Your task to perform on an android device: clear history in the chrome app Image 0: 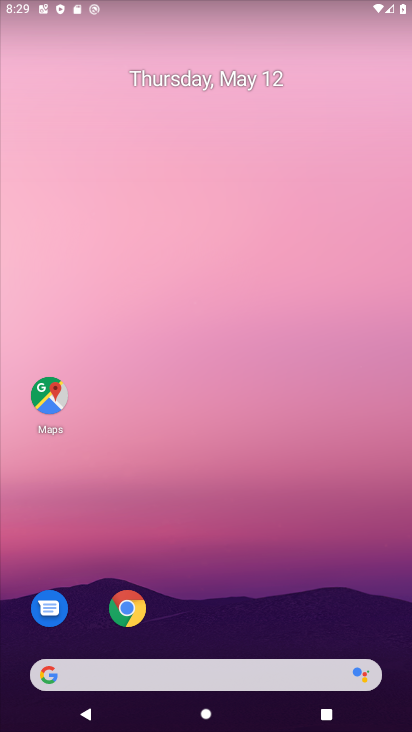
Step 0: click (134, 615)
Your task to perform on an android device: clear history in the chrome app Image 1: 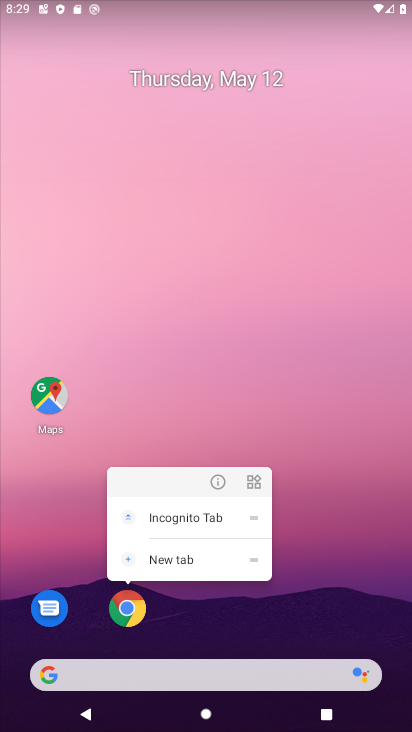
Step 1: click (126, 608)
Your task to perform on an android device: clear history in the chrome app Image 2: 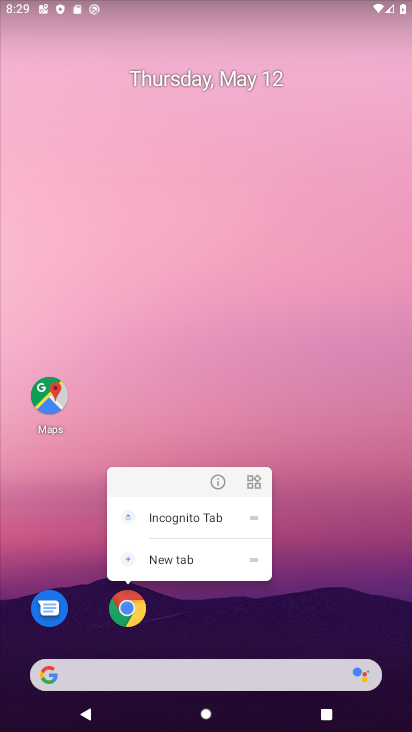
Step 2: click (123, 616)
Your task to perform on an android device: clear history in the chrome app Image 3: 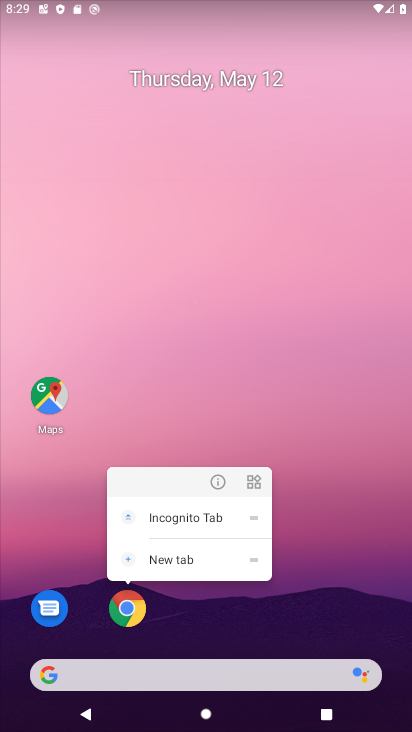
Step 3: click (127, 614)
Your task to perform on an android device: clear history in the chrome app Image 4: 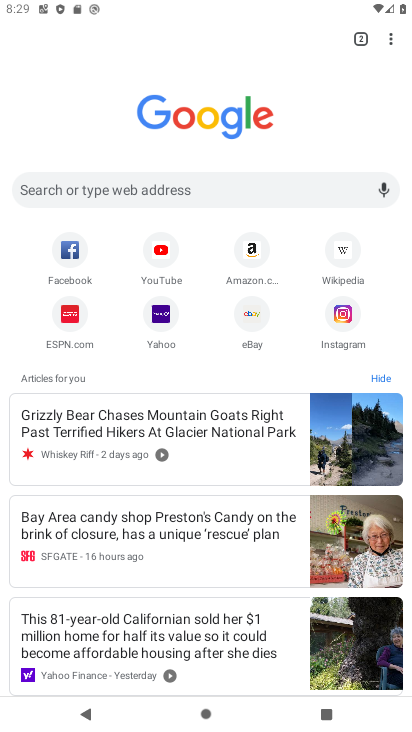
Step 4: drag from (389, 40) to (322, 229)
Your task to perform on an android device: clear history in the chrome app Image 5: 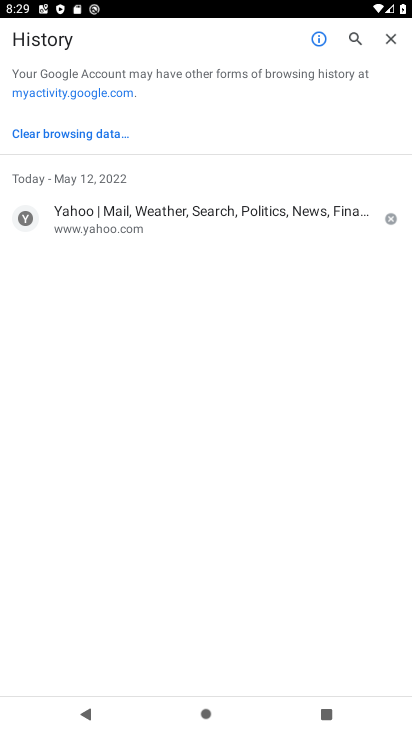
Step 5: click (91, 131)
Your task to perform on an android device: clear history in the chrome app Image 6: 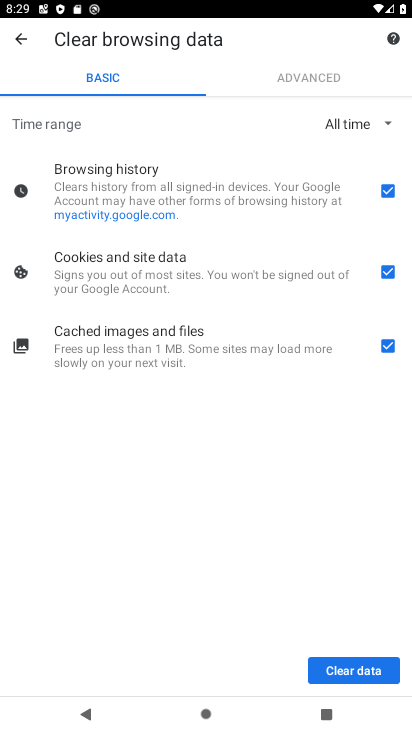
Step 6: click (363, 660)
Your task to perform on an android device: clear history in the chrome app Image 7: 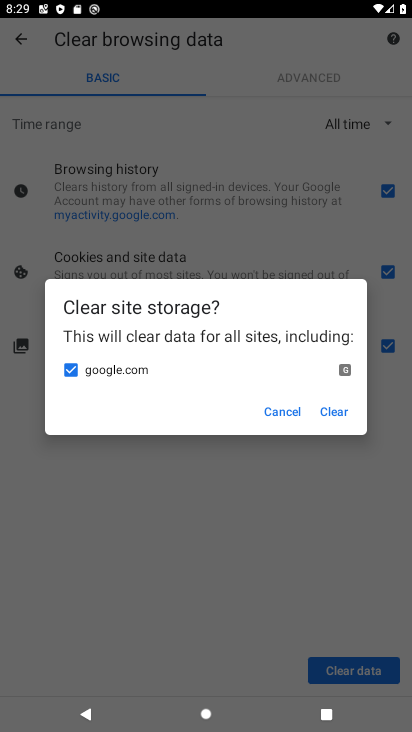
Step 7: click (349, 421)
Your task to perform on an android device: clear history in the chrome app Image 8: 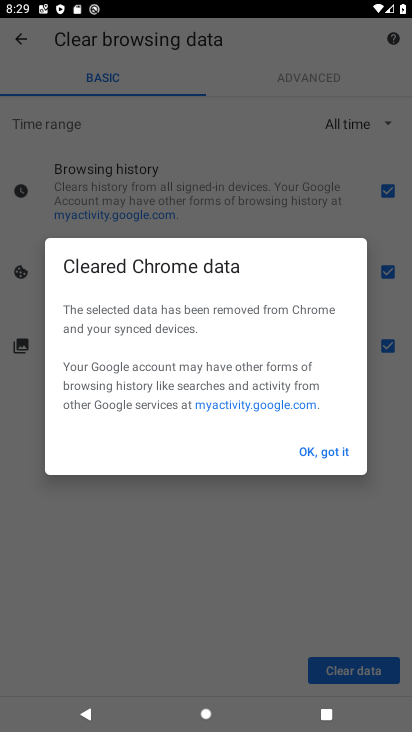
Step 8: click (331, 451)
Your task to perform on an android device: clear history in the chrome app Image 9: 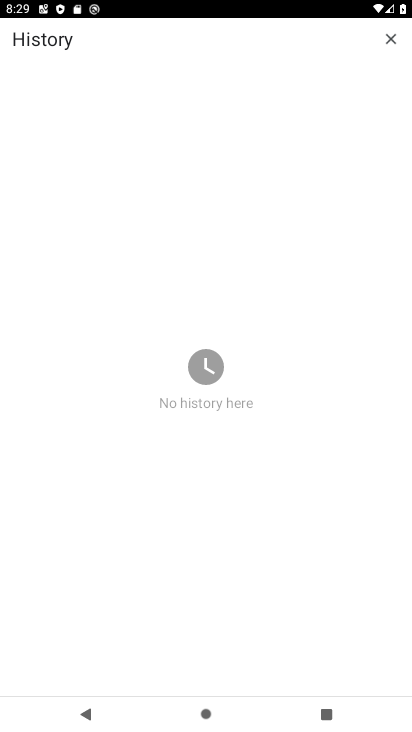
Step 9: task complete